Your task to perform on an android device: check the backup settings in the google photos Image 0: 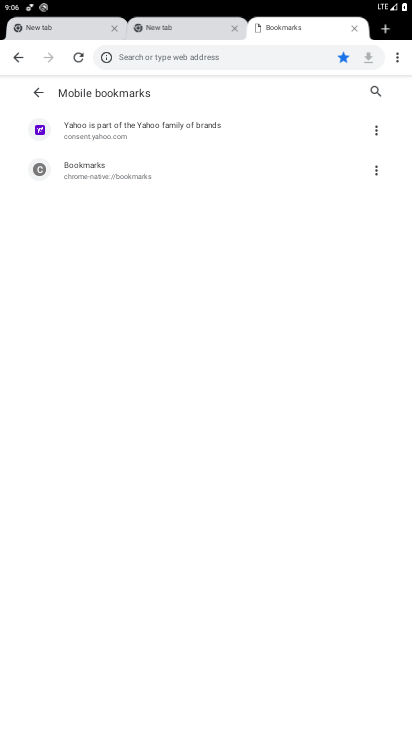
Step 0: press home button
Your task to perform on an android device: check the backup settings in the google photos Image 1: 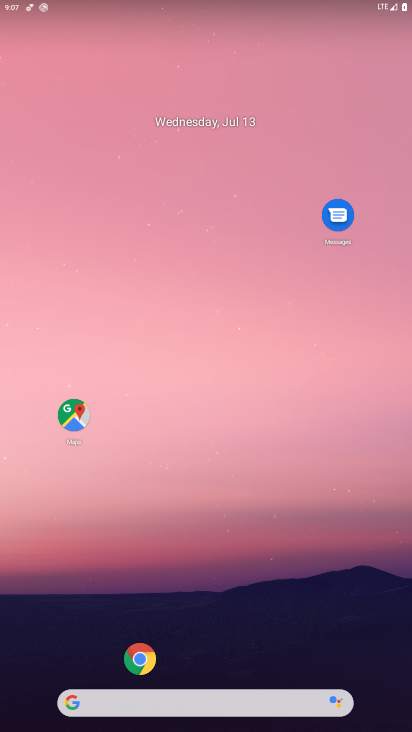
Step 1: drag from (50, 680) to (203, 126)
Your task to perform on an android device: check the backup settings in the google photos Image 2: 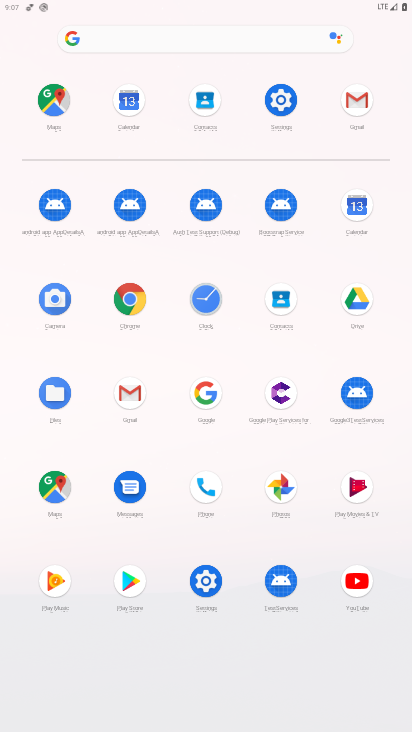
Step 2: click (282, 491)
Your task to perform on an android device: check the backup settings in the google photos Image 3: 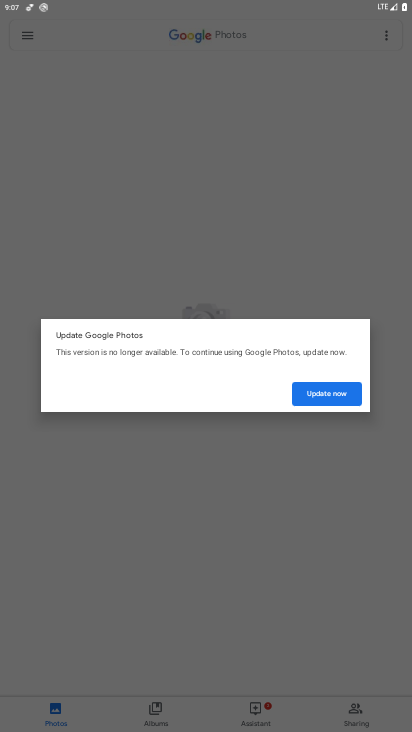
Step 3: click (313, 391)
Your task to perform on an android device: check the backup settings in the google photos Image 4: 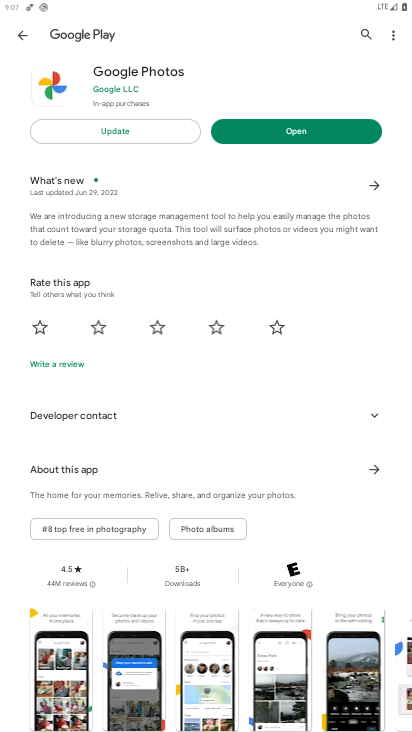
Step 4: click (318, 128)
Your task to perform on an android device: check the backup settings in the google photos Image 5: 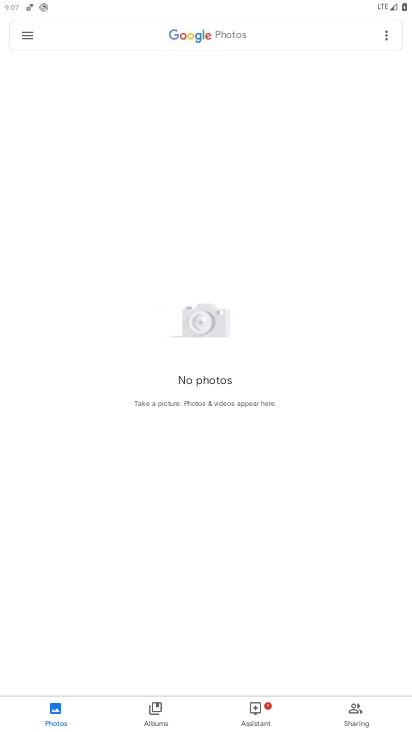
Step 5: click (32, 35)
Your task to perform on an android device: check the backup settings in the google photos Image 6: 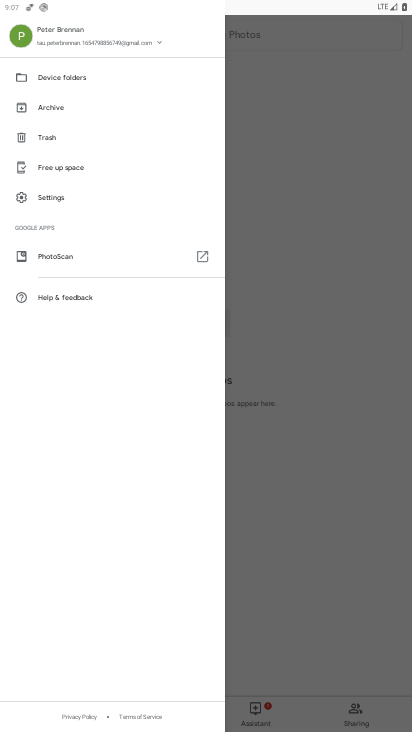
Step 6: click (43, 191)
Your task to perform on an android device: check the backup settings in the google photos Image 7: 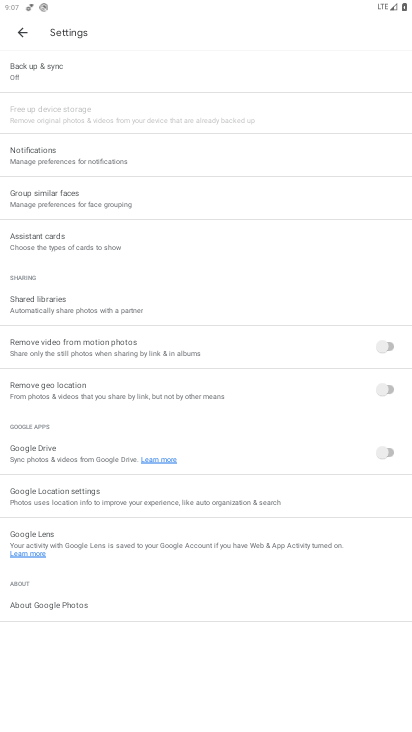
Step 7: click (91, 57)
Your task to perform on an android device: check the backup settings in the google photos Image 8: 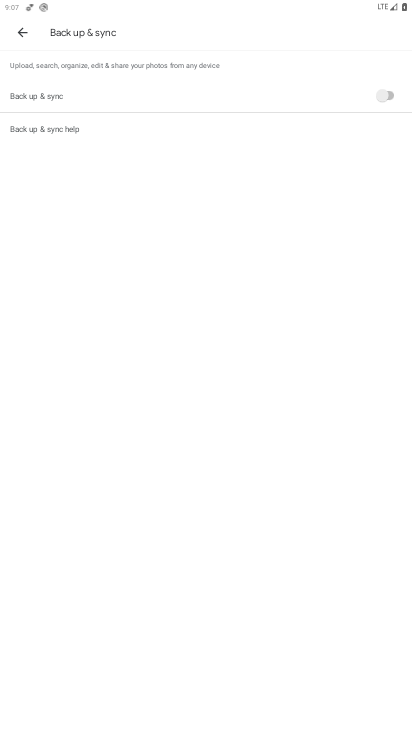
Step 8: task complete